Your task to perform on an android device: change the clock display to show seconds Image 0: 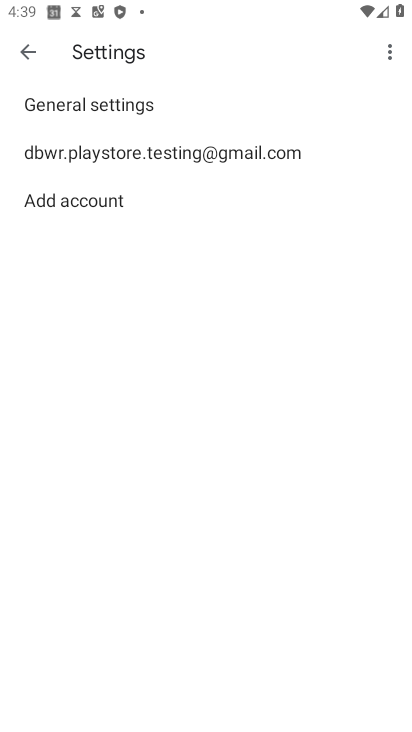
Step 0: click (18, 49)
Your task to perform on an android device: change the clock display to show seconds Image 1: 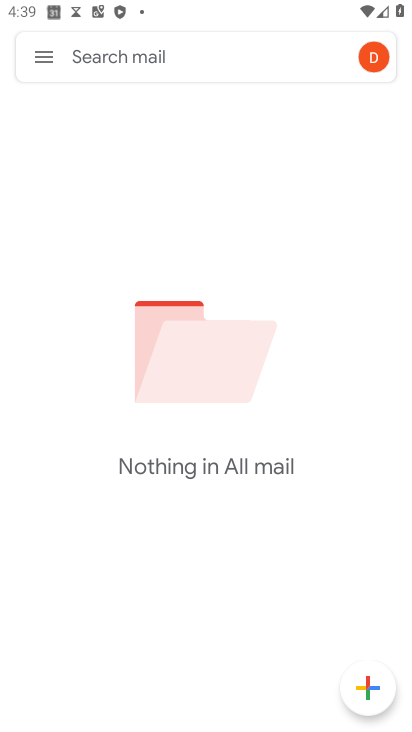
Step 1: press back button
Your task to perform on an android device: change the clock display to show seconds Image 2: 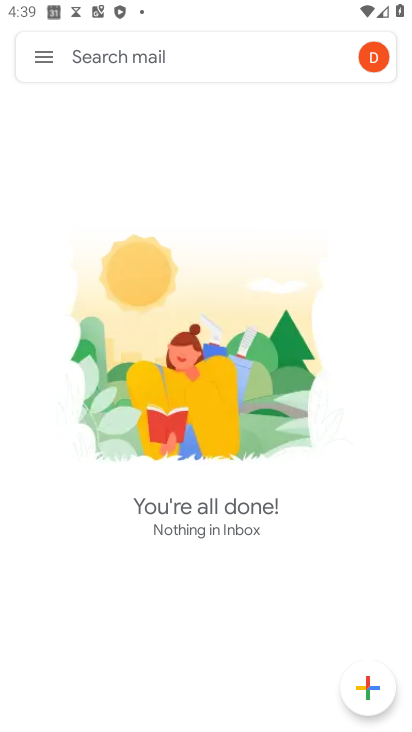
Step 2: press home button
Your task to perform on an android device: change the clock display to show seconds Image 3: 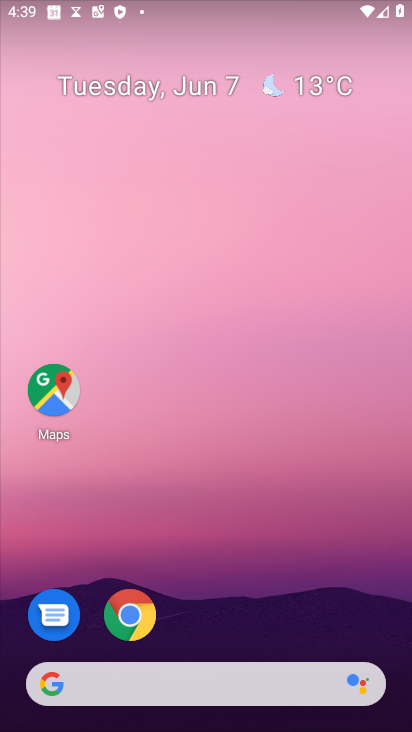
Step 3: drag from (270, 664) to (140, 6)
Your task to perform on an android device: change the clock display to show seconds Image 4: 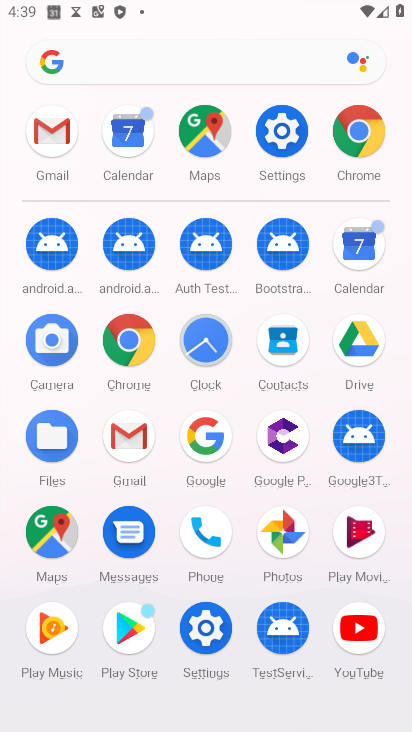
Step 4: click (213, 336)
Your task to perform on an android device: change the clock display to show seconds Image 5: 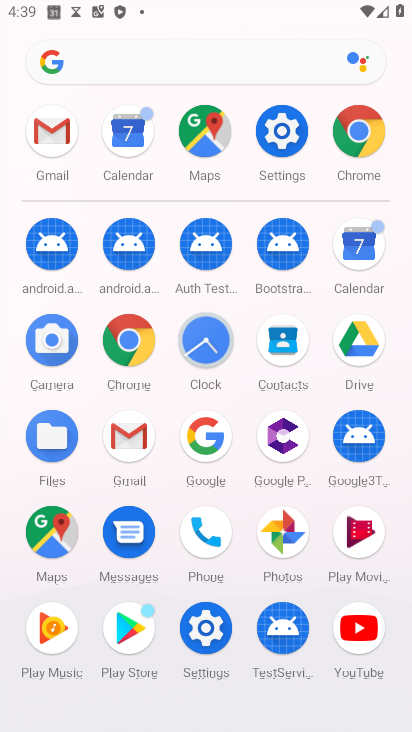
Step 5: click (213, 336)
Your task to perform on an android device: change the clock display to show seconds Image 6: 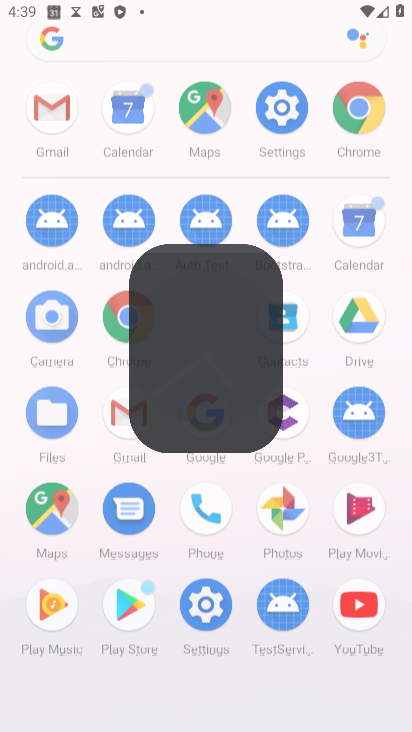
Step 6: click (213, 336)
Your task to perform on an android device: change the clock display to show seconds Image 7: 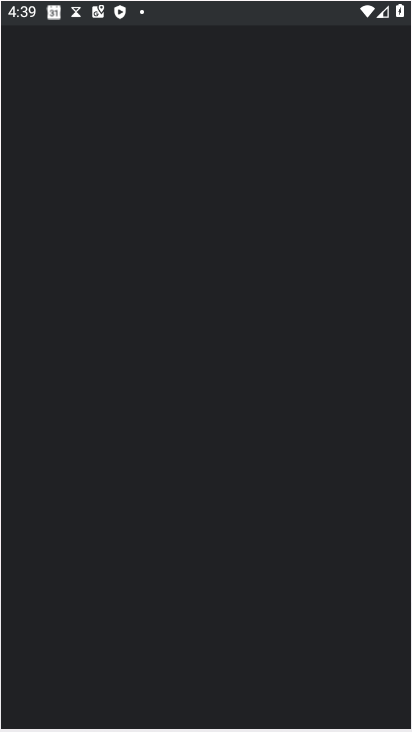
Step 7: click (213, 336)
Your task to perform on an android device: change the clock display to show seconds Image 8: 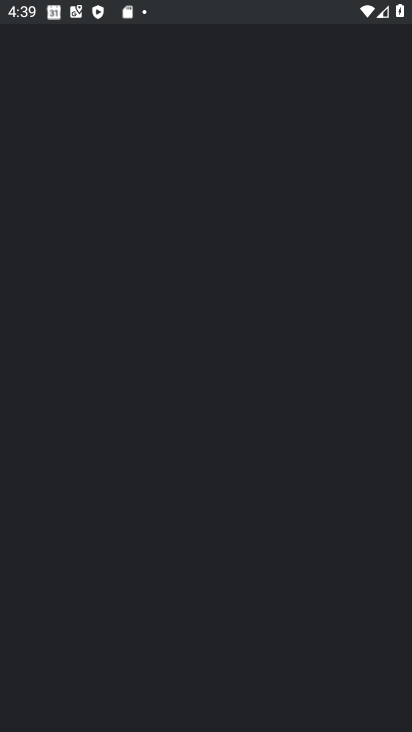
Step 8: click (205, 334)
Your task to perform on an android device: change the clock display to show seconds Image 9: 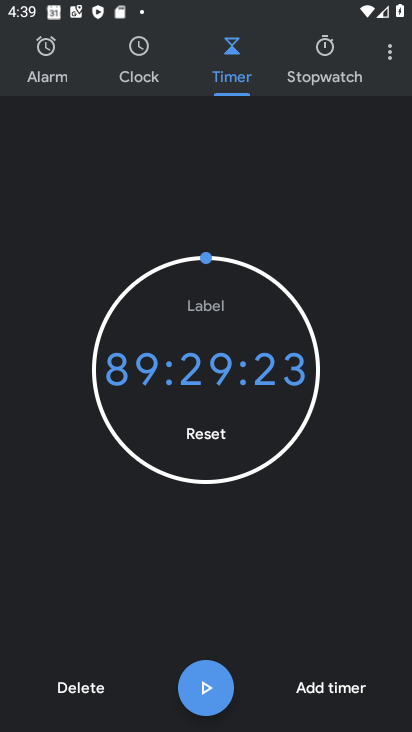
Step 9: click (387, 61)
Your task to perform on an android device: change the clock display to show seconds Image 10: 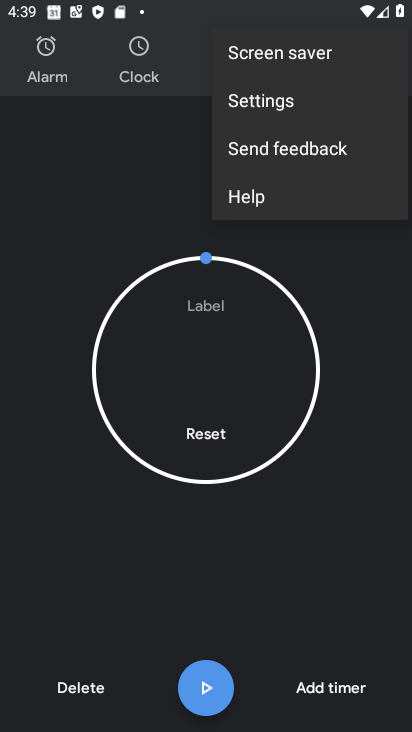
Step 10: click (260, 97)
Your task to perform on an android device: change the clock display to show seconds Image 11: 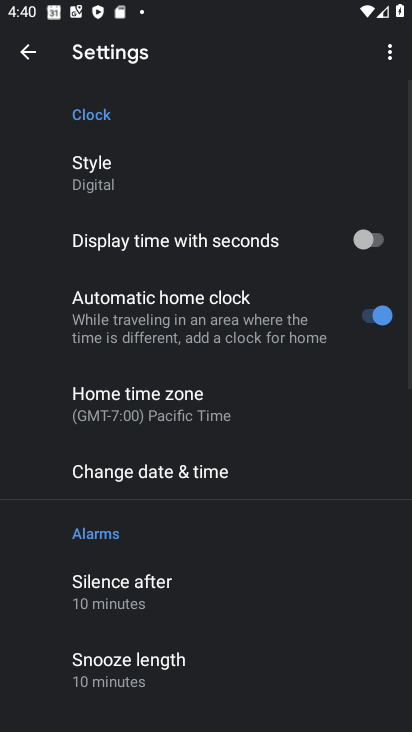
Step 11: click (357, 232)
Your task to perform on an android device: change the clock display to show seconds Image 12: 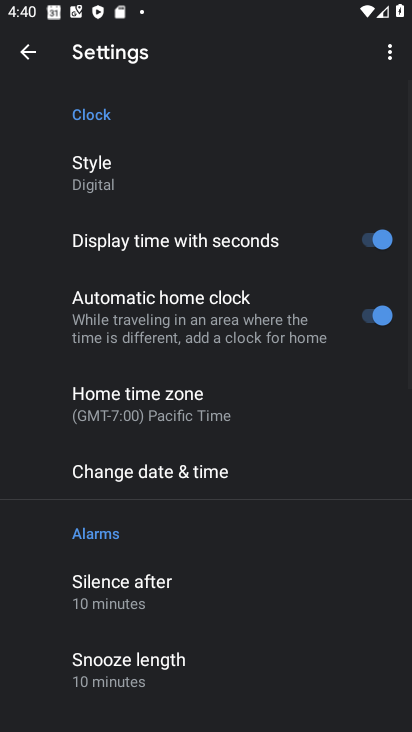
Step 12: task complete